Your task to perform on an android device: Open battery settings Image 0: 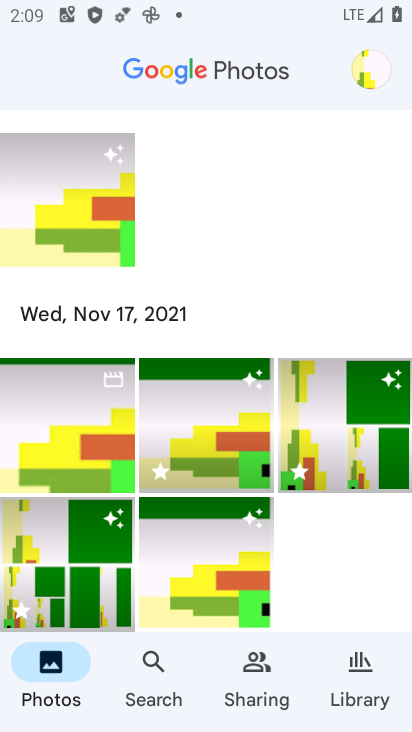
Step 0: press home button
Your task to perform on an android device: Open battery settings Image 1: 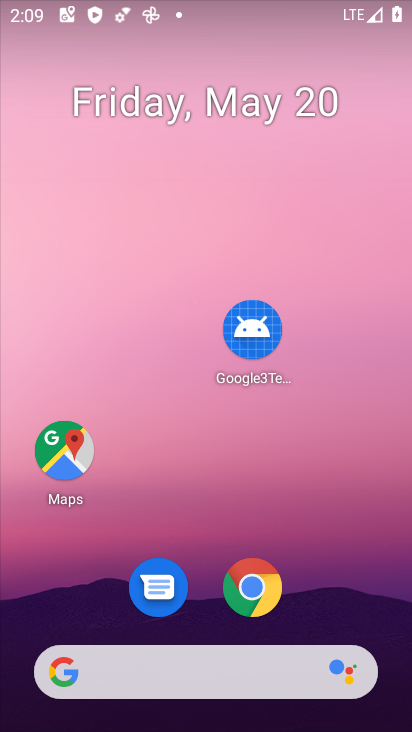
Step 1: drag from (327, 564) to (277, 141)
Your task to perform on an android device: Open battery settings Image 2: 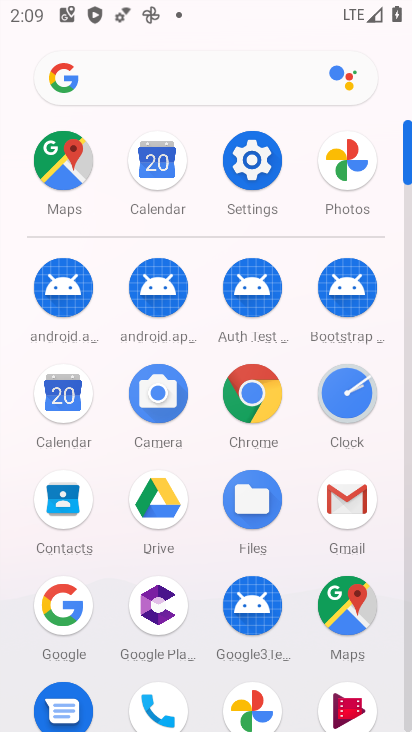
Step 2: click (259, 154)
Your task to perform on an android device: Open battery settings Image 3: 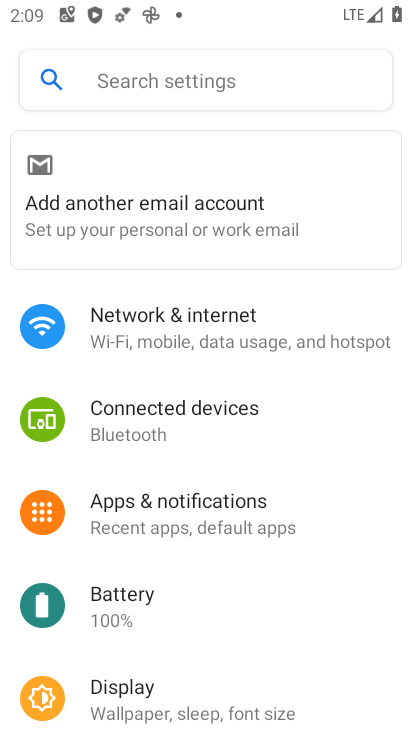
Step 3: click (107, 591)
Your task to perform on an android device: Open battery settings Image 4: 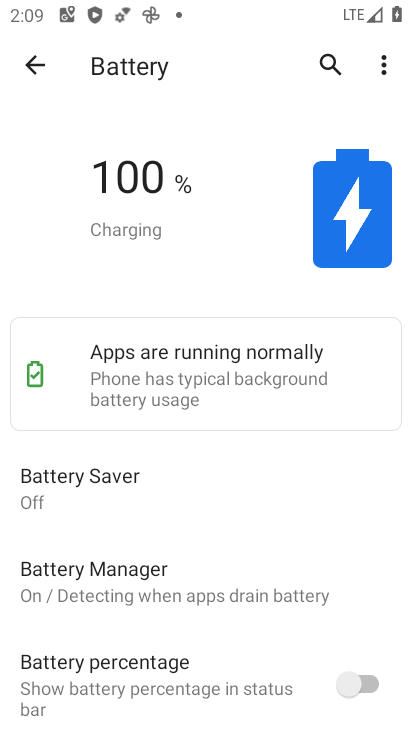
Step 4: task complete